Your task to perform on an android device: Open my contact list Image 0: 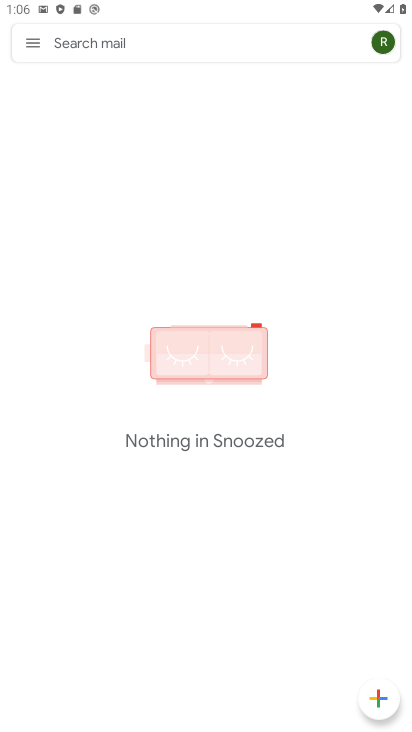
Step 0: press home button
Your task to perform on an android device: Open my contact list Image 1: 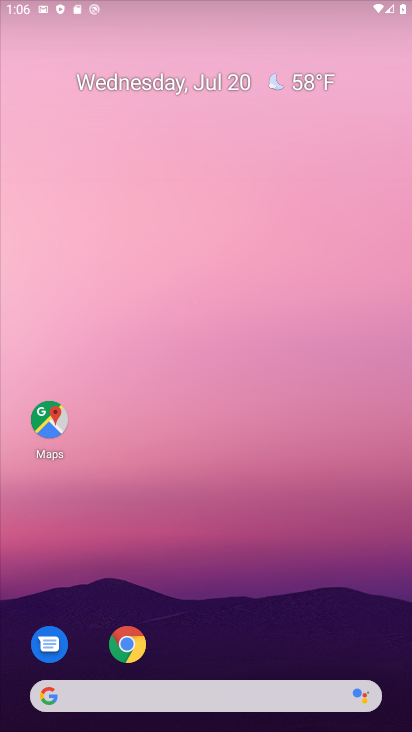
Step 1: drag from (185, 659) to (184, 138)
Your task to perform on an android device: Open my contact list Image 2: 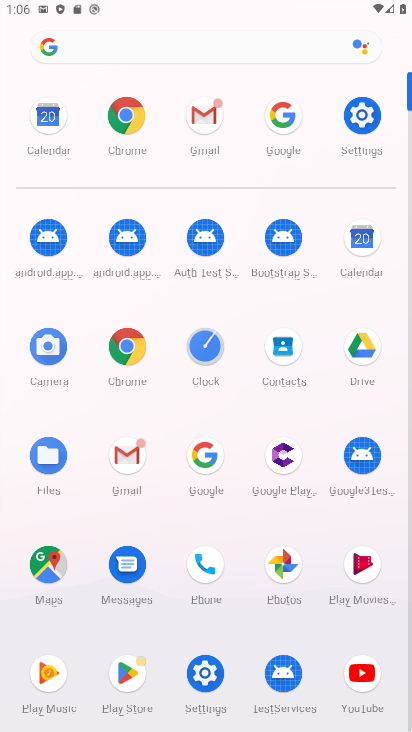
Step 2: click (280, 344)
Your task to perform on an android device: Open my contact list Image 3: 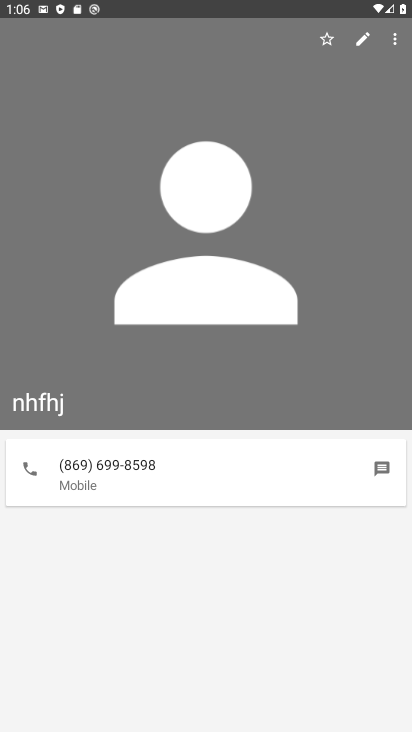
Step 3: task complete